Your task to perform on an android device: When is my next appointment? Image 0: 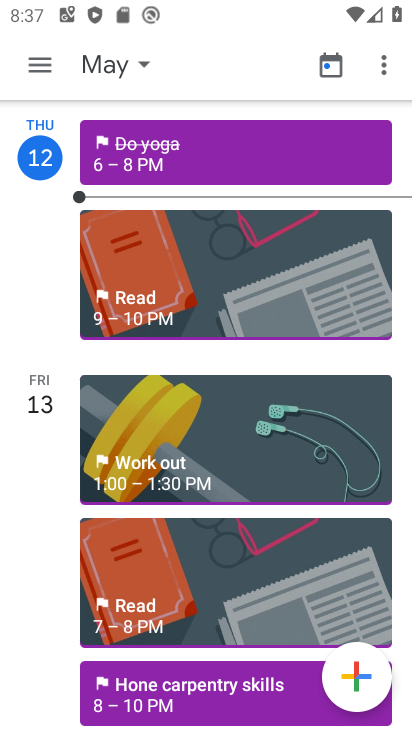
Step 0: press home button
Your task to perform on an android device: When is my next appointment? Image 1: 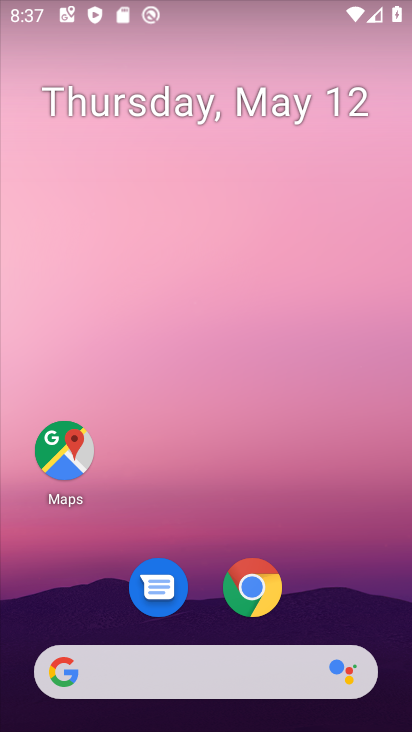
Step 1: drag from (322, 391) to (308, 257)
Your task to perform on an android device: When is my next appointment? Image 2: 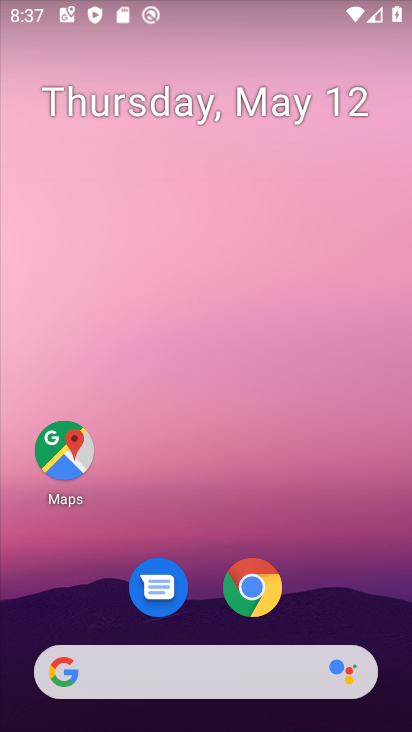
Step 2: drag from (281, 593) to (277, 312)
Your task to perform on an android device: When is my next appointment? Image 3: 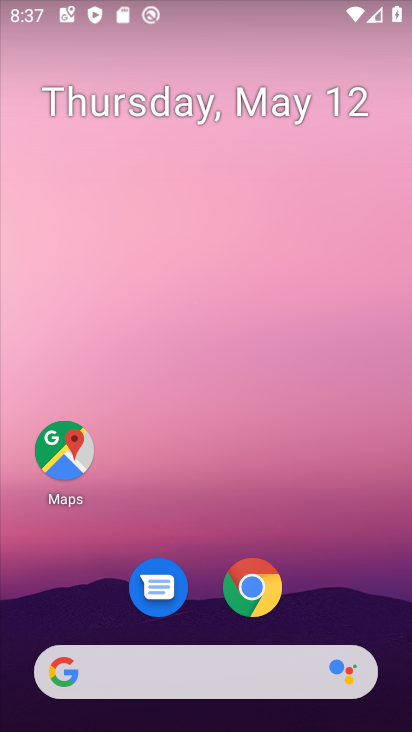
Step 3: drag from (259, 626) to (237, 218)
Your task to perform on an android device: When is my next appointment? Image 4: 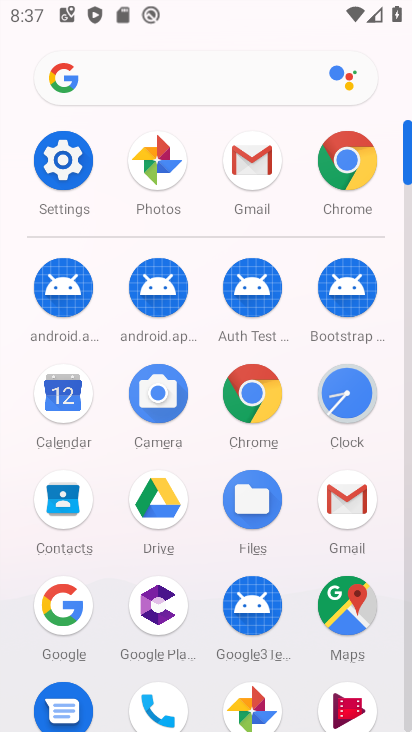
Step 4: click (61, 156)
Your task to perform on an android device: When is my next appointment? Image 5: 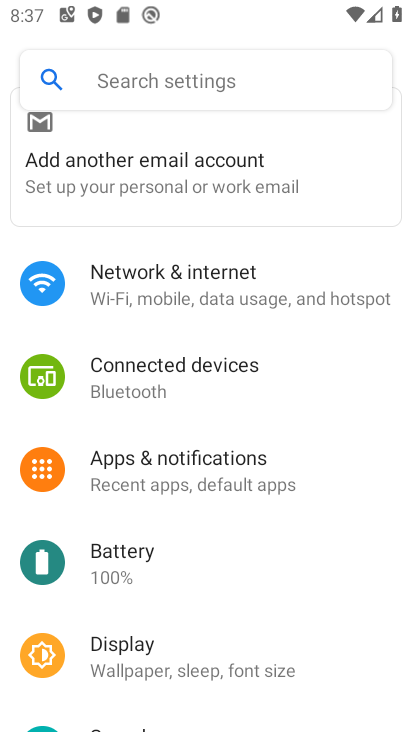
Step 5: drag from (214, 630) to (253, 312)
Your task to perform on an android device: When is my next appointment? Image 6: 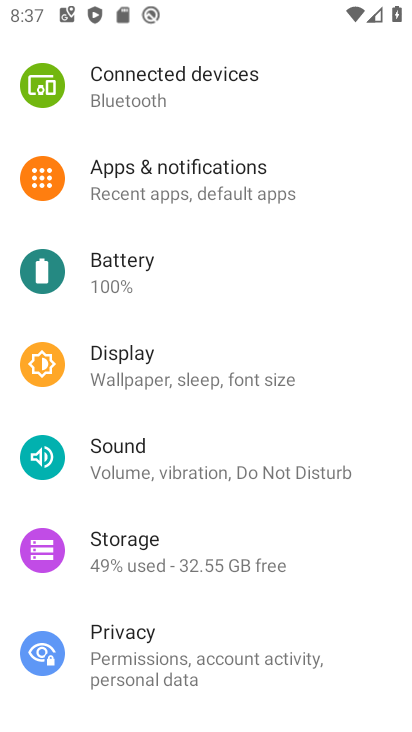
Step 6: drag from (257, 613) to (273, 228)
Your task to perform on an android device: When is my next appointment? Image 7: 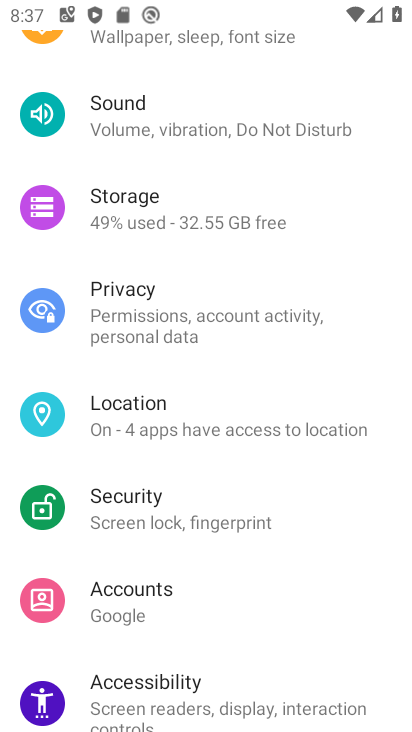
Step 7: press home button
Your task to perform on an android device: When is my next appointment? Image 8: 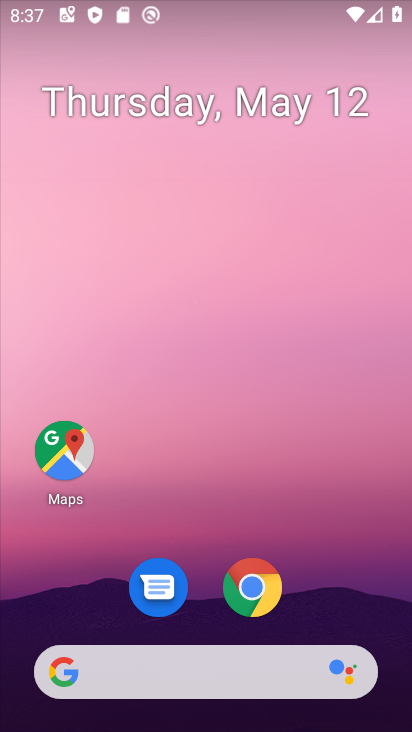
Step 8: drag from (313, 609) to (350, 158)
Your task to perform on an android device: When is my next appointment? Image 9: 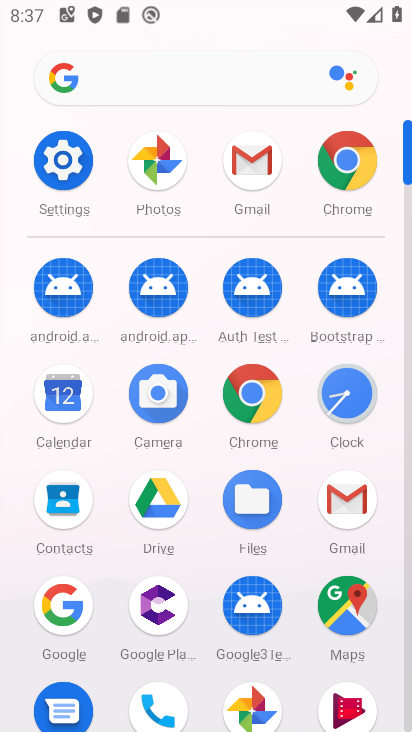
Step 9: click (59, 389)
Your task to perform on an android device: When is my next appointment? Image 10: 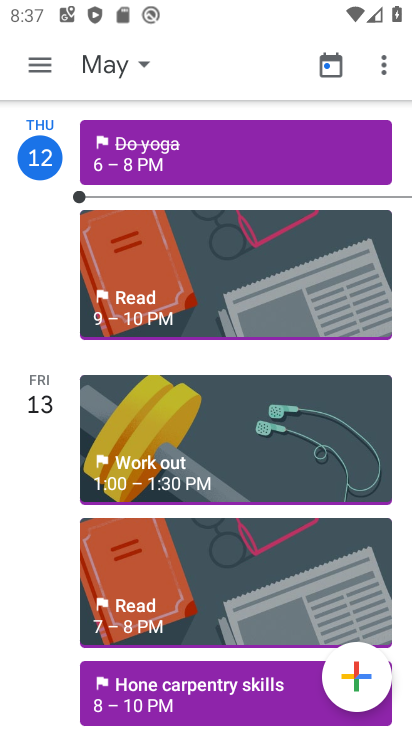
Step 10: task complete